Your task to perform on an android device: Go to Yahoo.com Image 0: 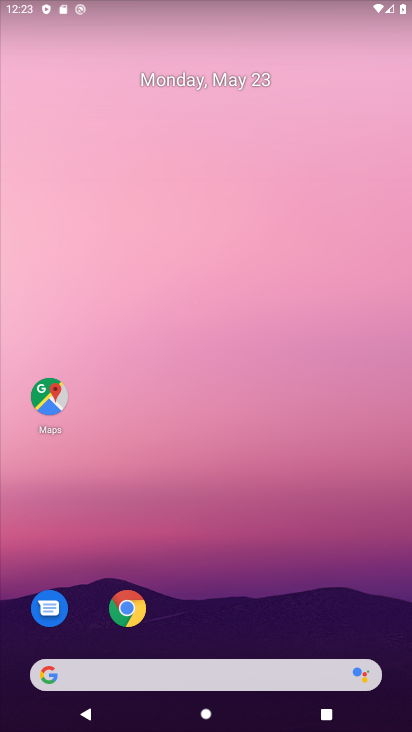
Step 0: drag from (318, 593) to (322, 206)
Your task to perform on an android device: Go to Yahoo.com Image 1: 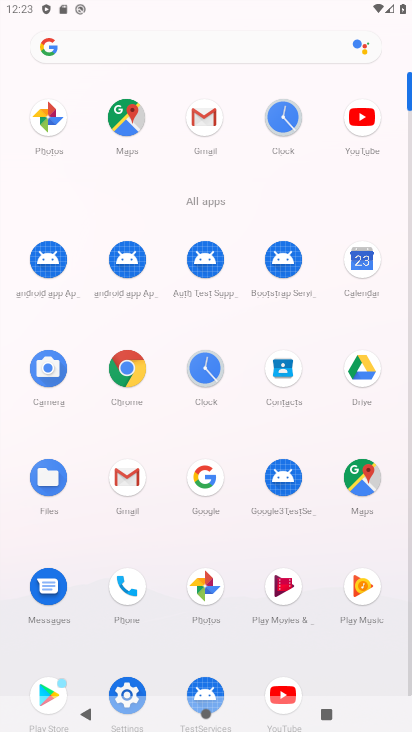
Step 1: click (121, 377)
Your task to perform on an android device: Go to Yahoo.com Image 2: 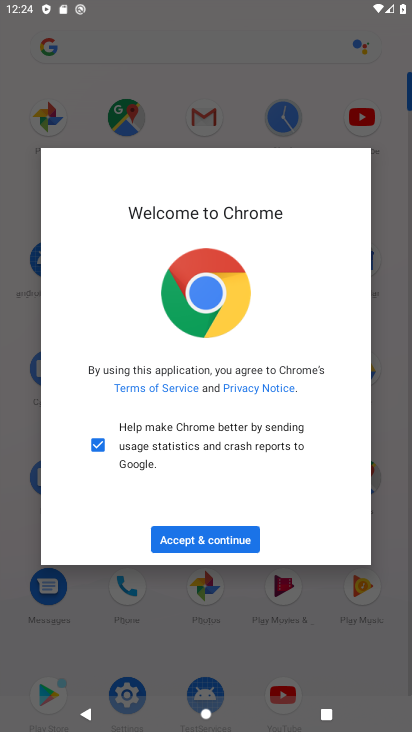
Step 2: click (228, 547)
Your task to perform on an android device: Go to Yahoo.com Image 3: 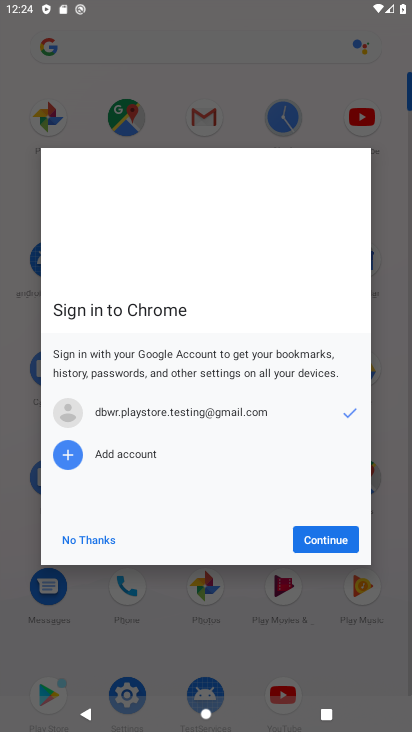
Step 3: click (306, 536)
Your task to perform on an android device: Go to Yahoo.com Image 4: 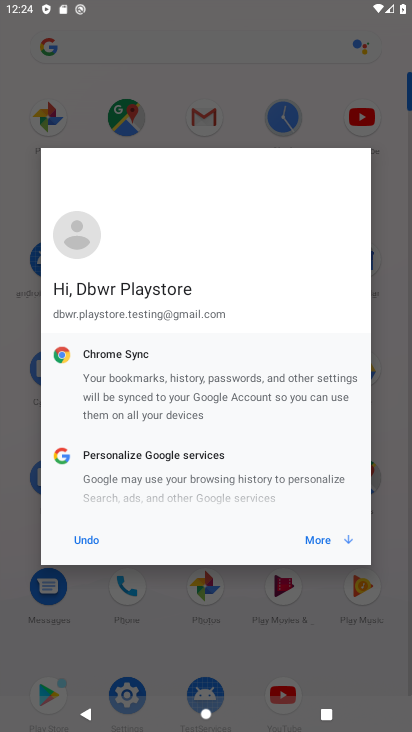
Step 4: click (311, 539)
Your task to perform on an android device: Go to Yahoo.com Image 5: 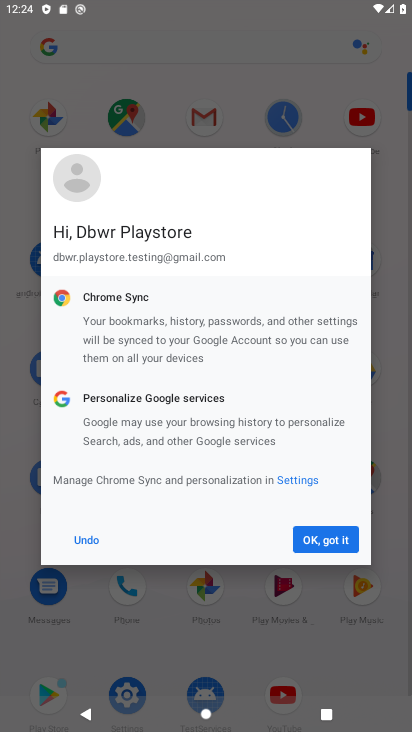
Step 5: click (307, 538)
Your task to perform on an android device: Go to Yahoo.com Image 6: 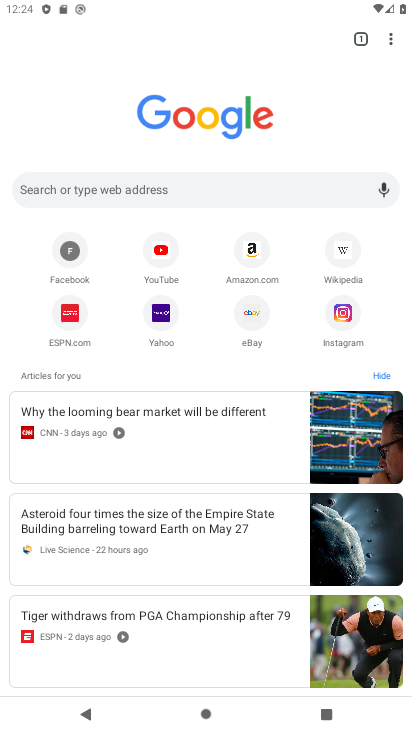
Step 6: click (157, 180)
Your task to perform on an android device: Go to Yahoo.com Image 7: 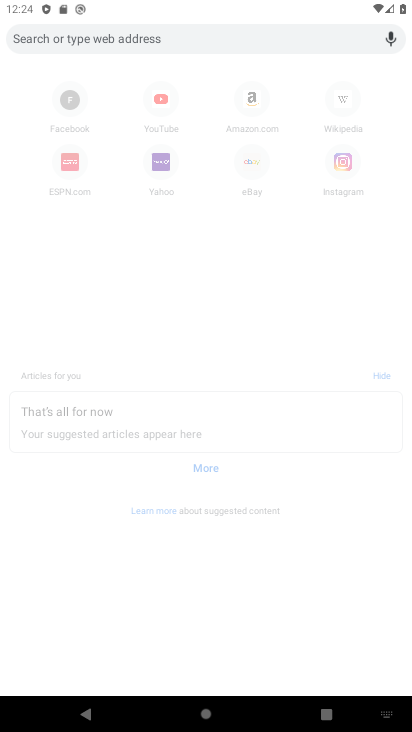
Step 7: type "yahoo.com"
Your task to perform on an android device: Go to Yahoo.com Image 8: 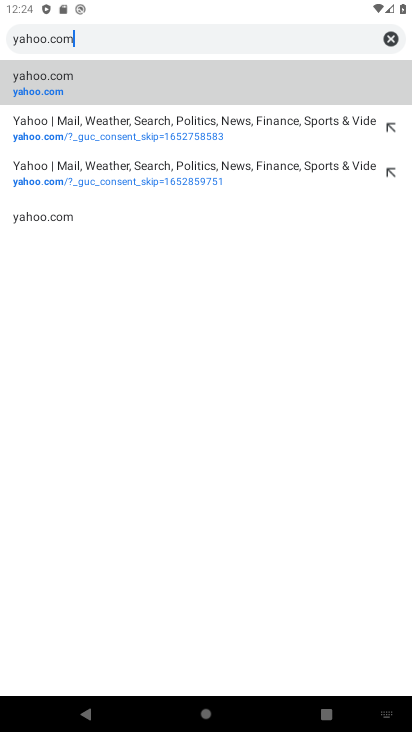
Step 8: click (219, 79)
Your task to perform on an android device: Go to Yahoo.com Image 9: 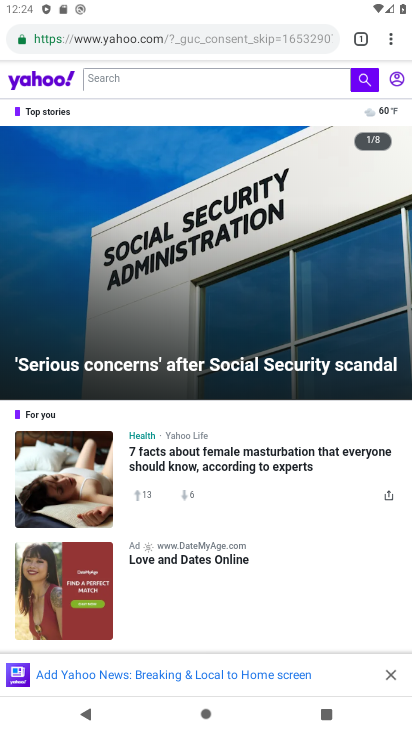
Step 9: task complete